Your task to perform on an android device: visit the assistant section in the google photos Image 0: 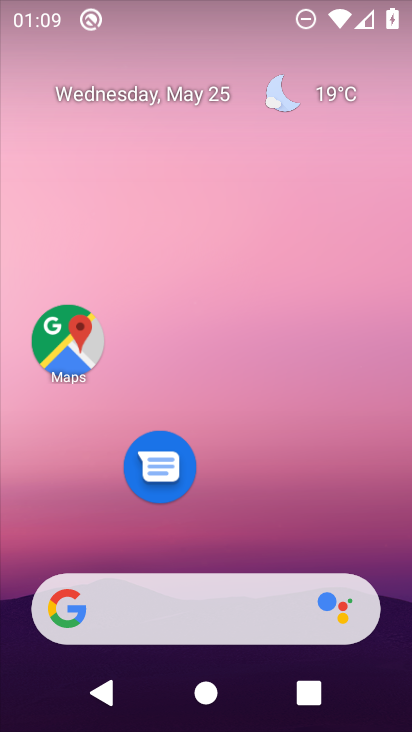
Step 0: click (395, 167)
Your task to perform on an android device: visit the assistant section in the google photos Image 1: 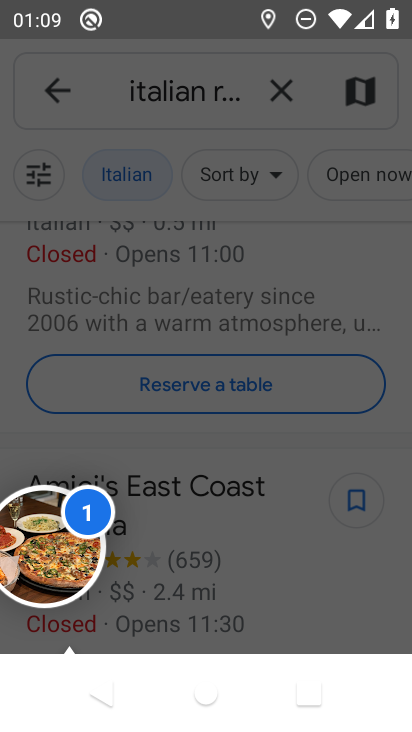
Step 1: drag from (311, 474) to (354, 338)
Your task to perform on an android device: visit the assistant section in the google photos Image 2: 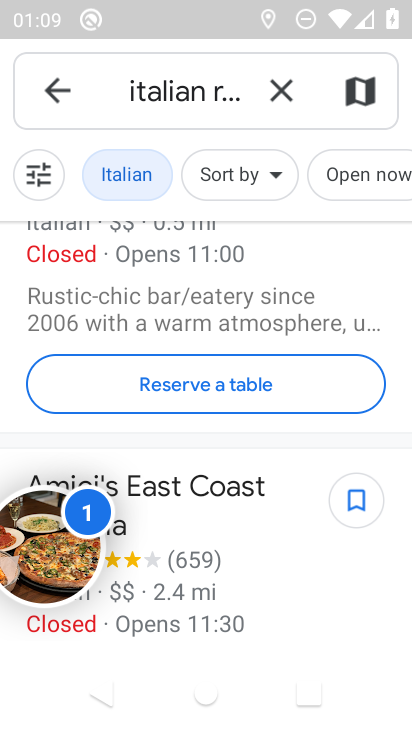
Step 2: press home button
Your task to perform on an android device: visit the assistant section in the google photos Image 3: 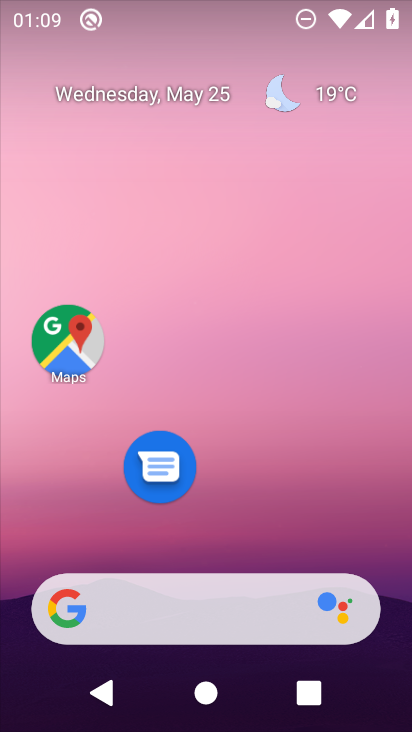
Step 3: drag from (233, 579) to (322, 272)
Your task to perform on an android device: visit the assistant section in the google photos Image 4: 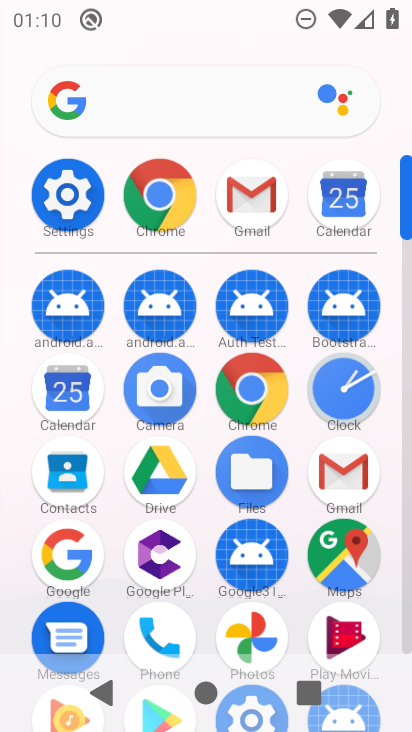
Step 4: click (256, 626)
Your task to perform on an android device: visit the assistant section in the google photos Image 5: 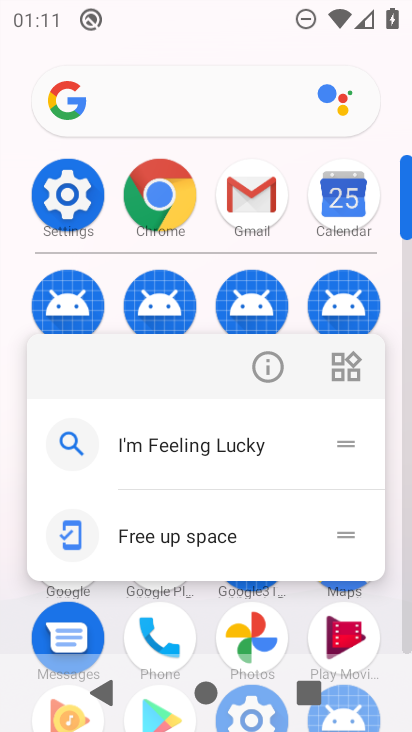
Step 5: drag from (237, 513) to (284, 161)
Your task to perform on an android device: visit the assistant section in the google photos Image 6: 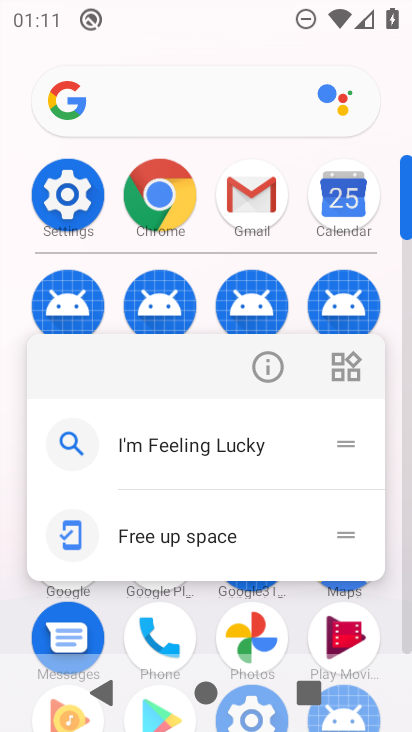
Step 6: click (266, 366)
Your task to perform on an android device: visit the assistant section in the google photos Image 7: 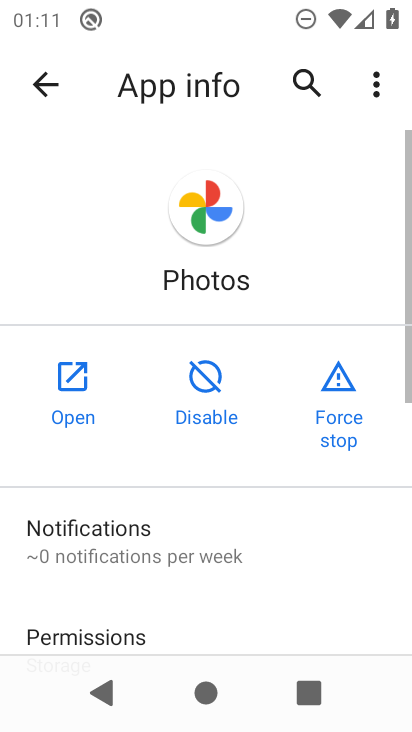
Step 7: click (91, 408)
Your task to perform on an android device: visit the assistant section in the google photos Image 8: 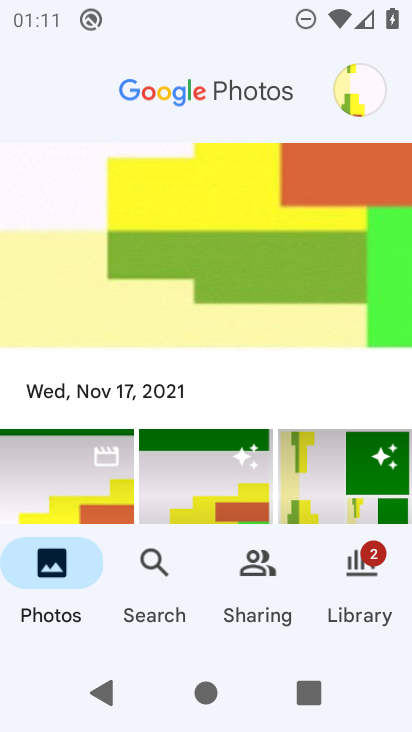
Step 8: click (348, 575)
Your task to perform on an android device: visit the assistant section in the google photos Image 9: 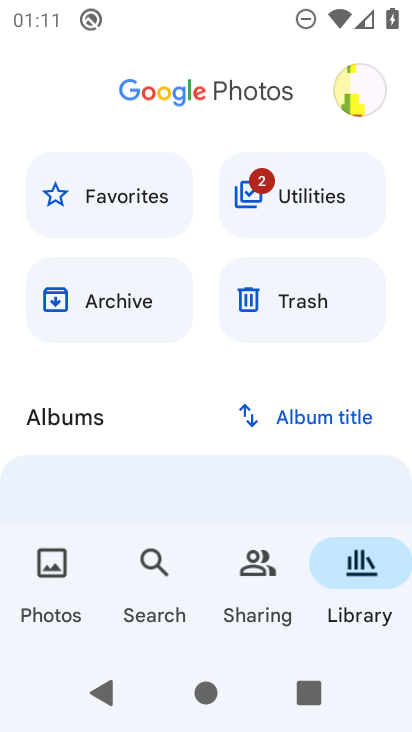
Step 9: task complete